Your task to perform on an android device: Go to internet settings Image 0: 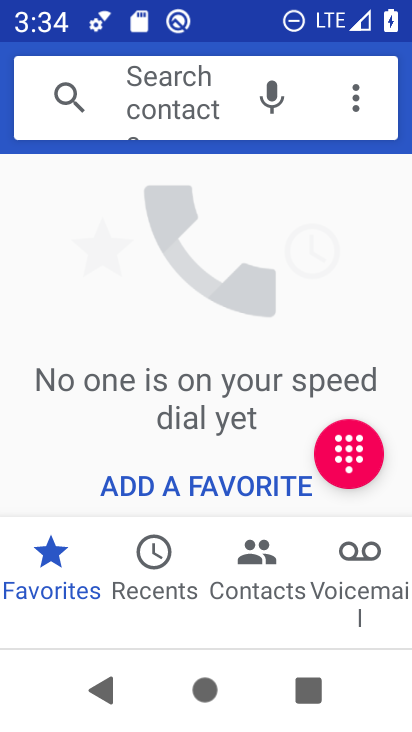
Step 0: press home button
Your task to perform on an android device: Go to internet settings Image 1: 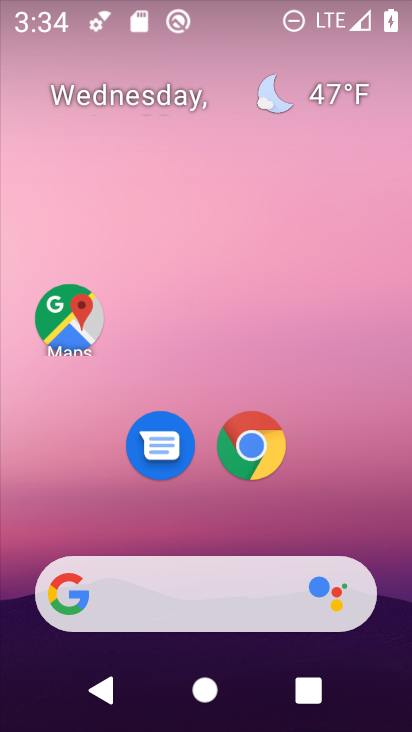
Step 1: drag from (276, 523) to (280, 47)
Your task to perform on an android device: Go to internet settings Image 2: 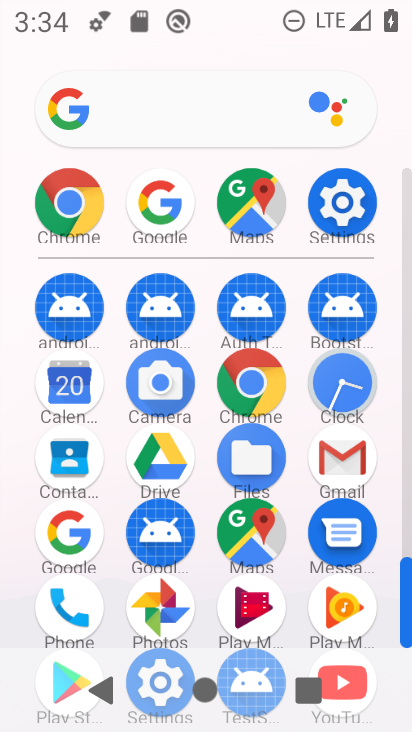
Step 2: click (345, 200)
Your task to perform on an android device: Go to internet settings Image 3: 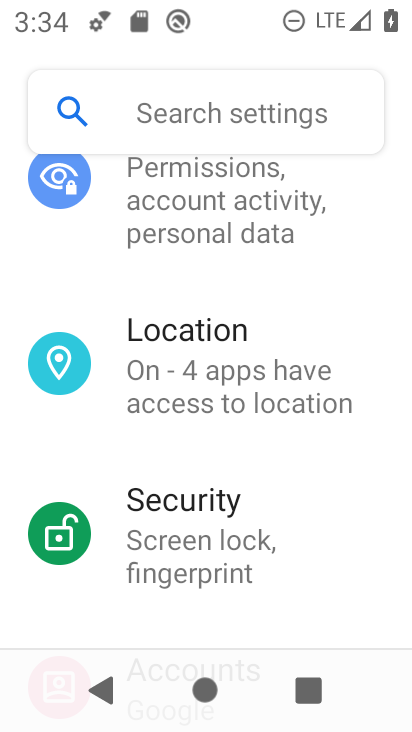
Step 3: drag from (293, 311) to (306, 464)
Your task to perform on an android device: Go to internet settings Image 4: 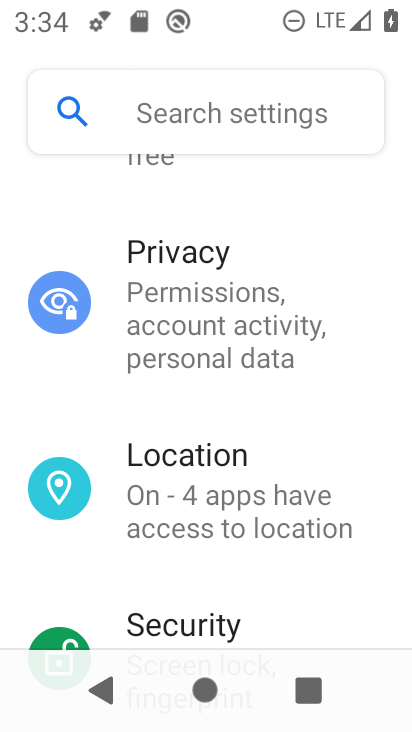
Step 4: drag from (306, 260) to (322, 434)
Your task to perform on an android device: Go to internet settings Image 5: 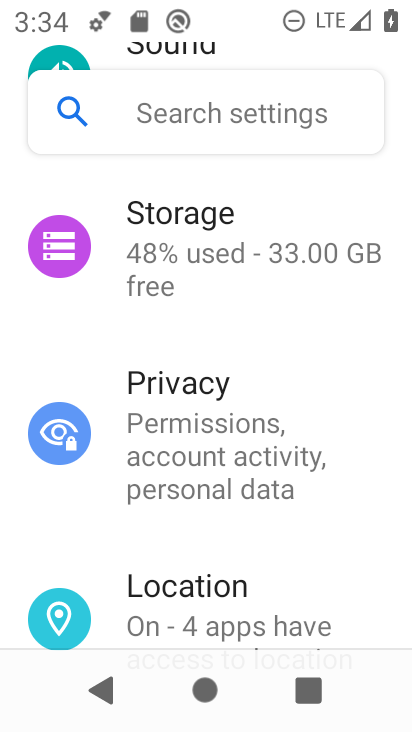
Step 5: drag from (307, 211) to (311, 491)
Your task to perform on an android device: Go to internet settings Image 6: 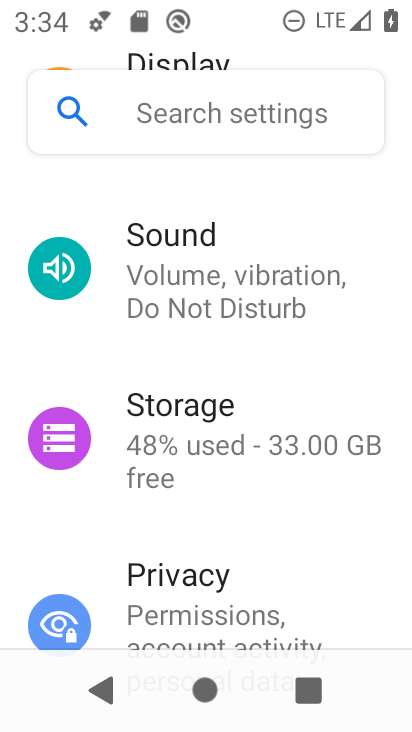
Step 6: drag from (312, 239) to (287, 484)
Your task to perform on an android device: Go to internet settings Image 7: 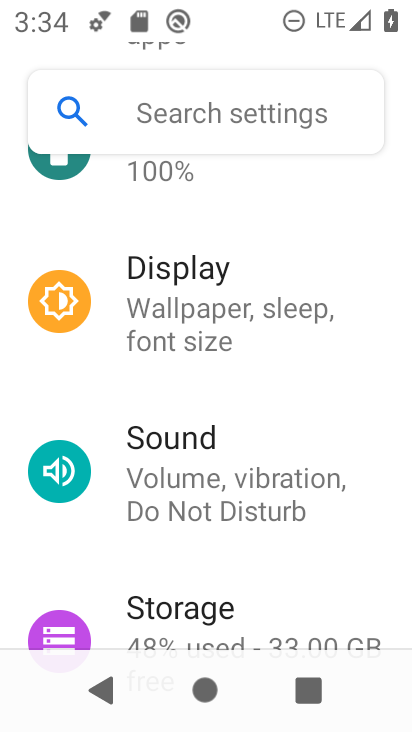
Step 7: drag from (241, 269) to (280, 493)
Your task to perform on an android device: Go to internet settings Image 8: 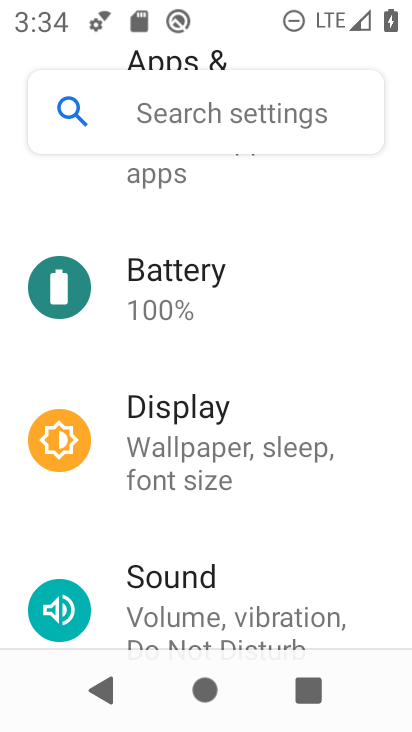
Step 8: drag from (255, 281) to (291, 439)
Your task to perform on an android device: Go to internet settings Image 9: 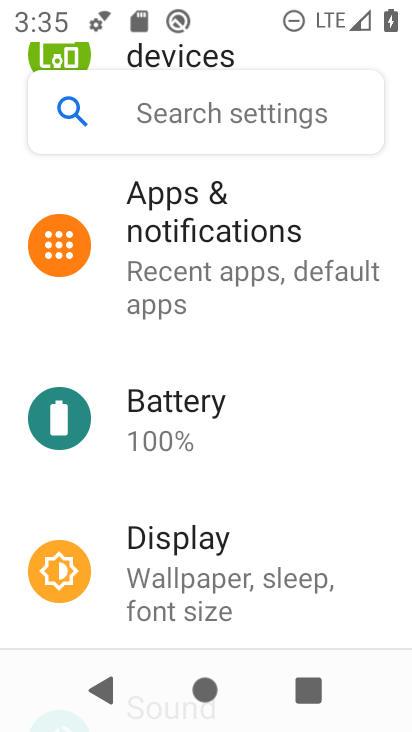
Step 9: drag from (265, 309) to (275, 451)
Your task to perform on an android device: Go to internet settings Image 10: 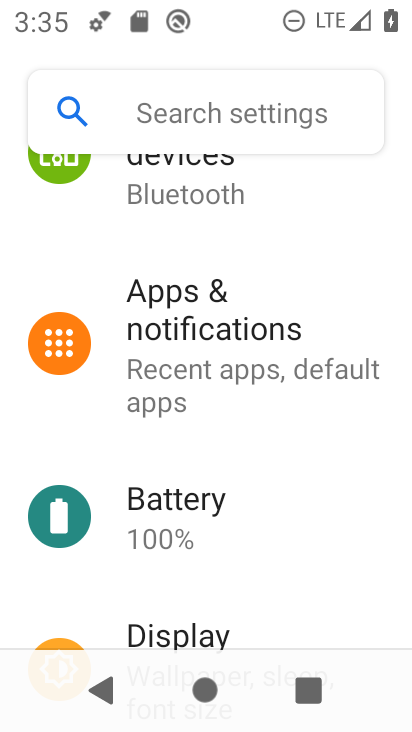
Step 10: drag from (262, 272) to (286, 437)
Your task to perform on an android device: Go to internet settings Image 11: 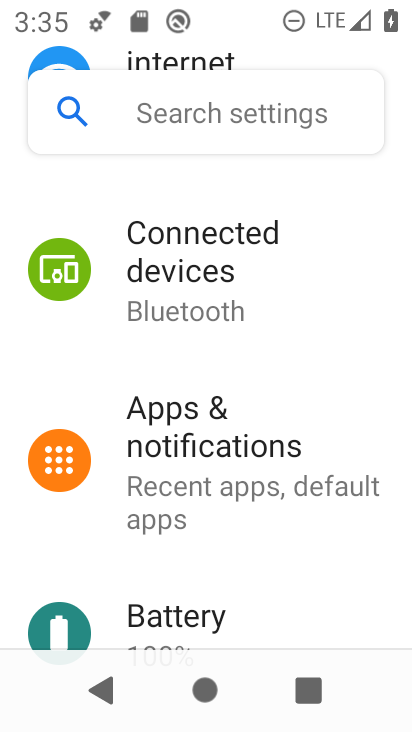
Step 11: drag from (311, 269) to (299, 436)
Your task to perform on an android device: Go to internet settings Image 12: 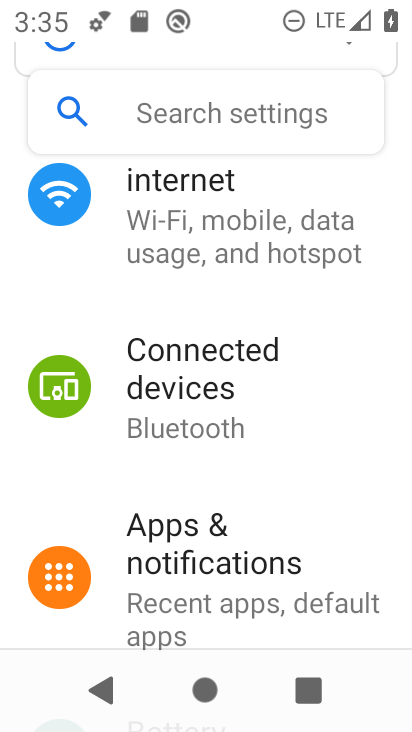
Step 12: click (171, 177)
Your task to perform on an android device: Go to internet settings Image 13: 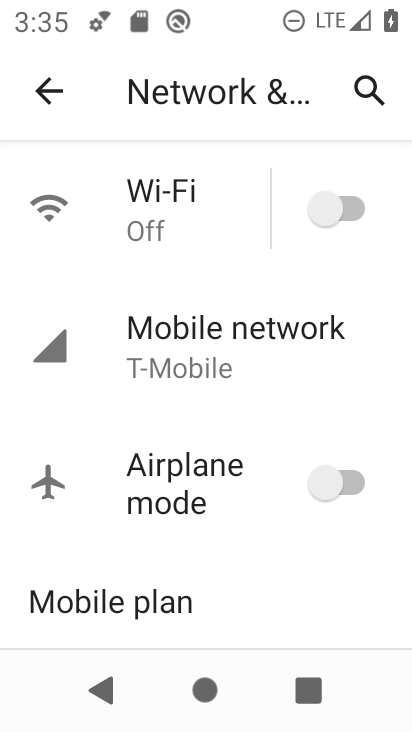
Step 13: task complete